Your task to perform on an android device: turn on the 24-hour format for clock Image 0: 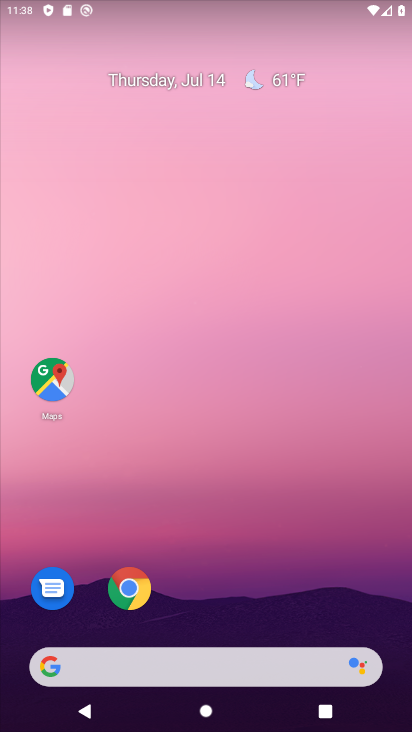
Step 0: drag from (185, 532) to (174, 19)
Your task to perform on an android device: turn on the 24-hour format for clock Image 1: 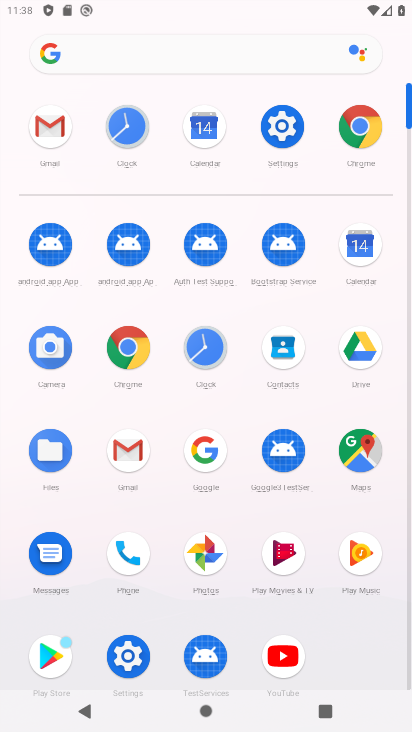
Step 1: click (130, 649)
Your task to perform on an android device: turn on the 24-hour format for clock Image 2: 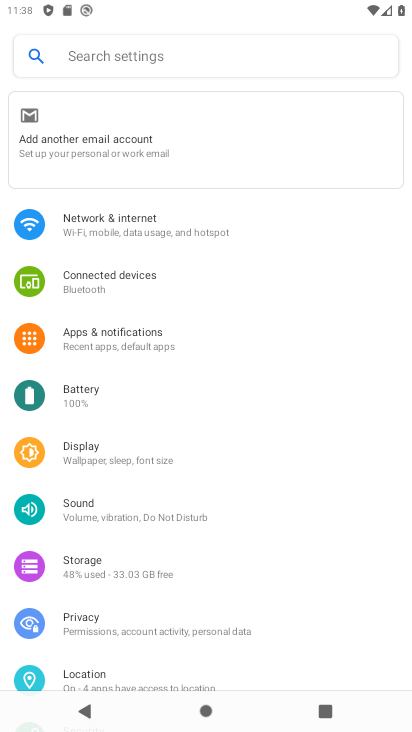
Step 2: drag from (134, 638) to (134, 209)
Your task to perform on an android device: turn on the 24-hour format for clock Image 3: 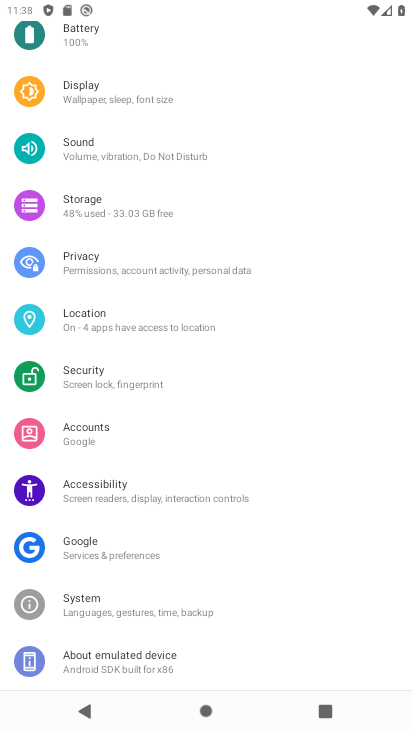
Step 3: click (93, 608)
Your task to perform on an android device: turn on the 24-hour format for clock Image 4: 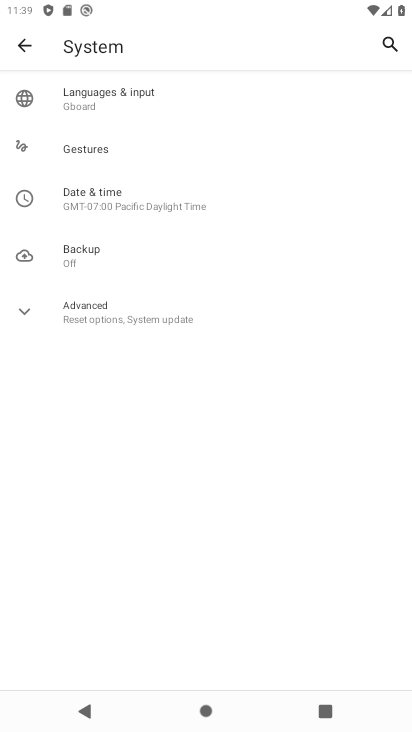
Step 4: click (116, 201)
Your task to perform on an android device: turn on the 24-hour format for clock Image 5: 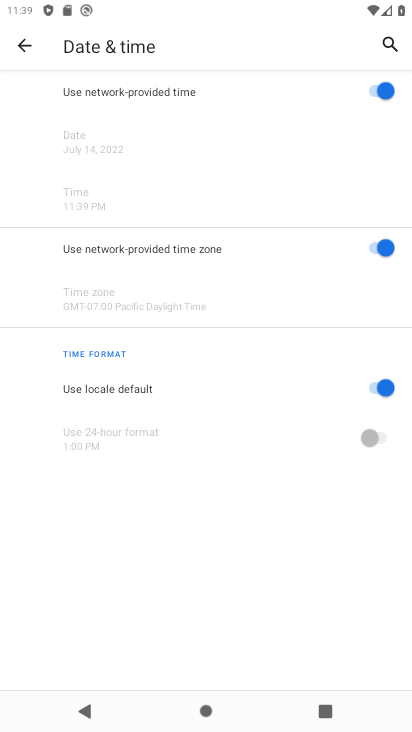
Step 5: click (360, 377)
Your task to perform on an android device: turn on the 24-hour format for clock Image 6: 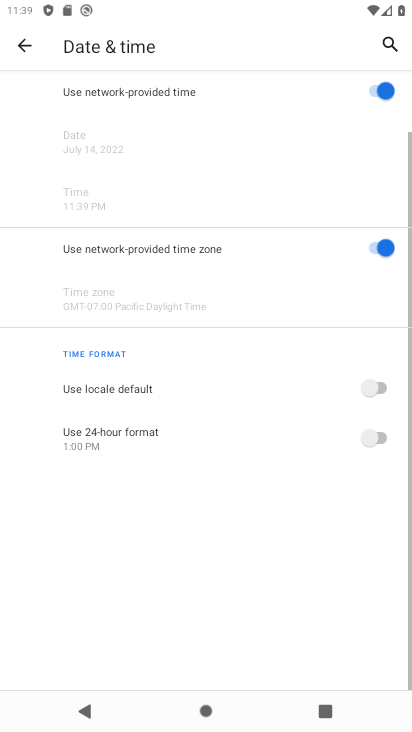
Step 6: click (388, 442)
Your task to perform on an android device: turn on the 24-hour format for clock Image 7: 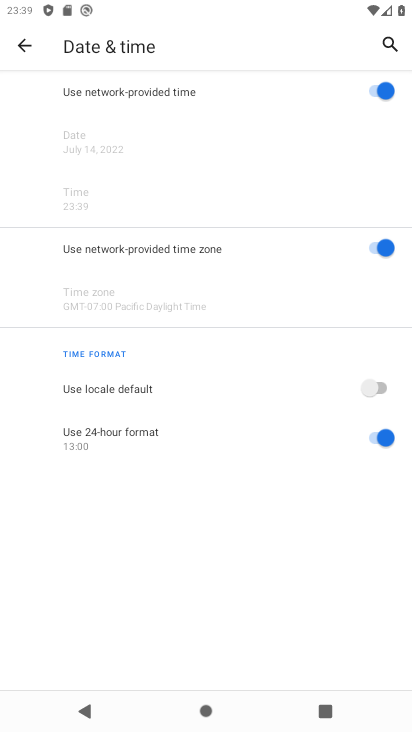
Step 7: task complete